Your task to perform on an android device: Go to Android settings Image 0: 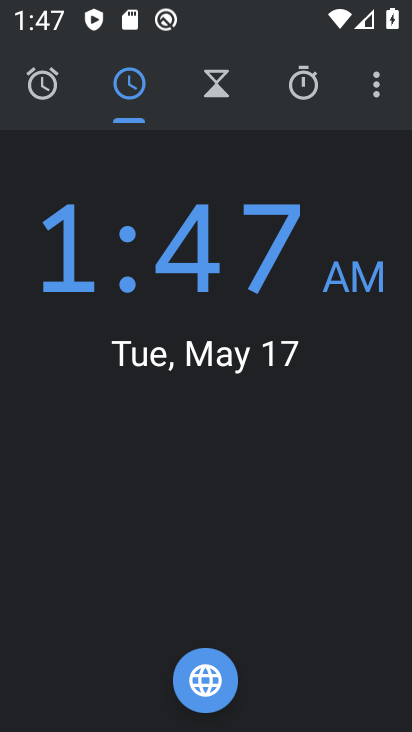
Step 0: press back button
Your task to perform on an android device: Go to Android settings Image 1: 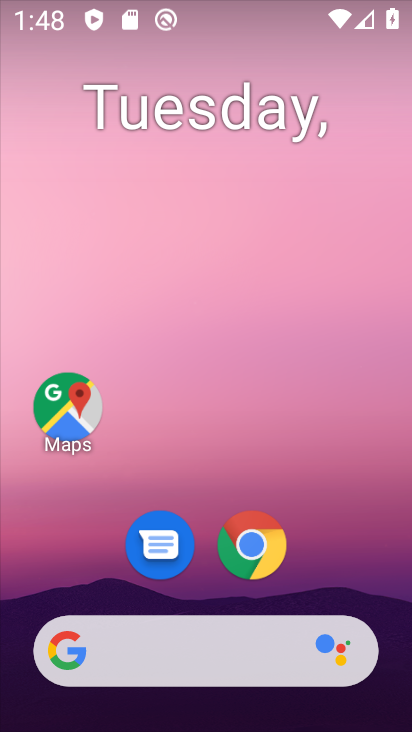
Step 1: drag from (318, 460) to (264, 0)
Your task to perform on an android device: Go to Android settings Image 2: 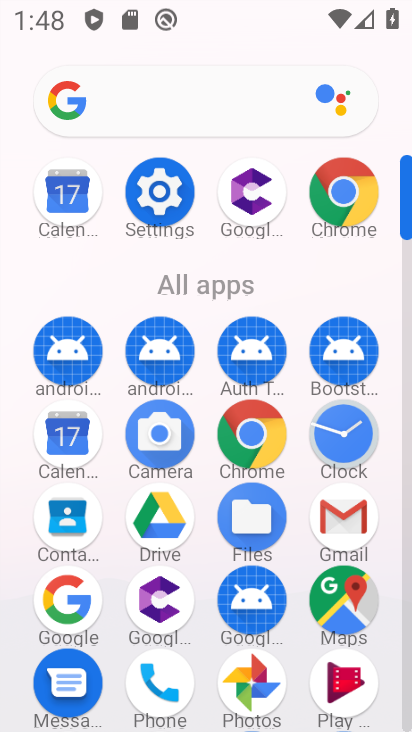
Step 2: drag from (7, 509) to (5, 294)
Your task to perform on an android device: Go to Android settings Image 3: 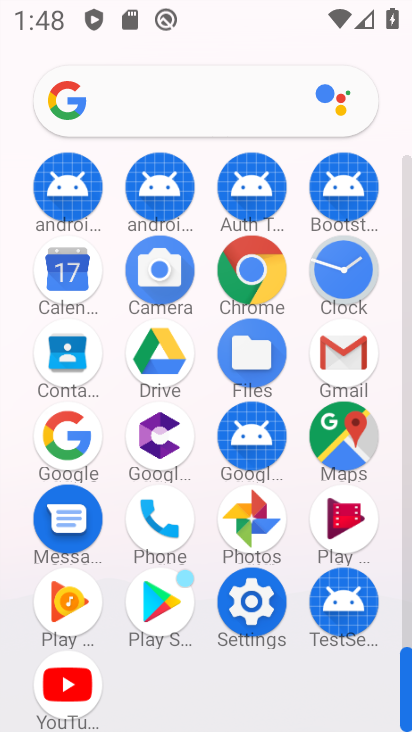
Step 3: click (248, 607)
Your task to perform on an android device: Go to Android settings Image 4: 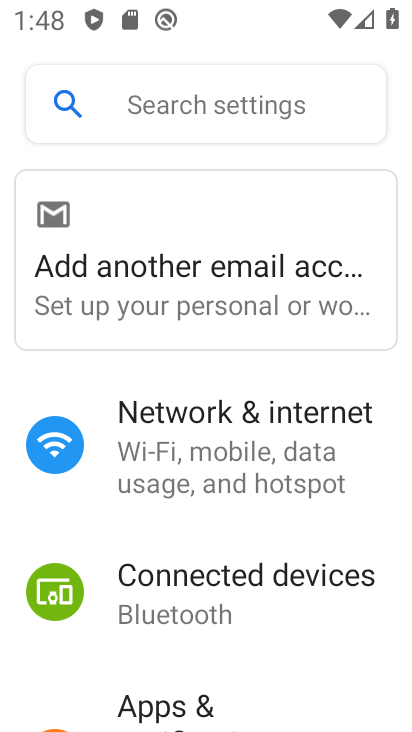
Step 4: task complete